Your task to perform on an android device: Set the phone to "Do not disturb". Image 0: 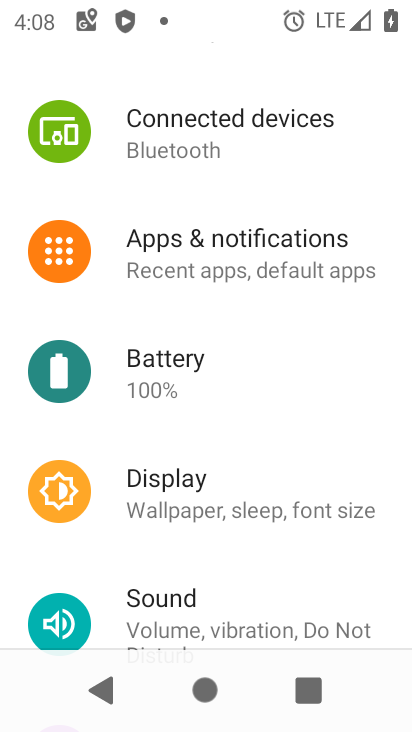
Step 0: click (308, 539)
Your task to perform on an android device: Set the phone to "Do not disturb". Image 1: 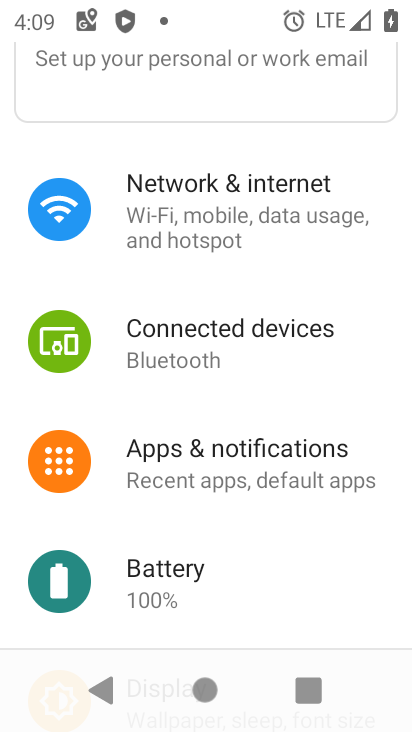
Step 1: drag from (231, 506) to (277, 172)
Your task to perform on an android device: Set the phone to "Do not disturb". Image 2: 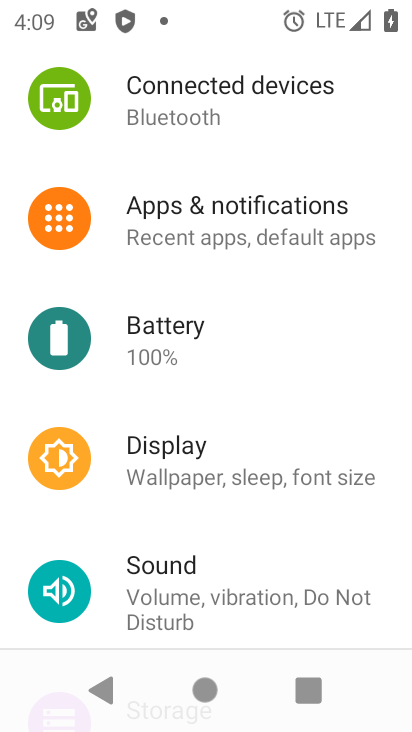
Step 2: click (180, 562)
Your task to perform on an android device: Set the phone to "Do not disturb". Image 3: 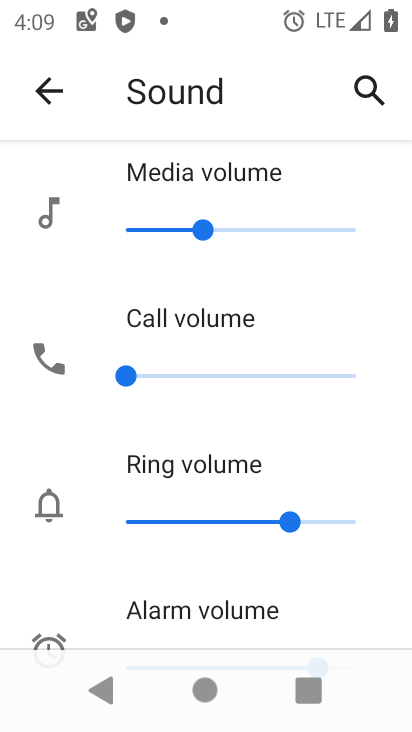
Step 3: drag from (189, 523) to (254, 159)
Your task to perform on an android device: Set the phone to "Do not disturb". Image 4: 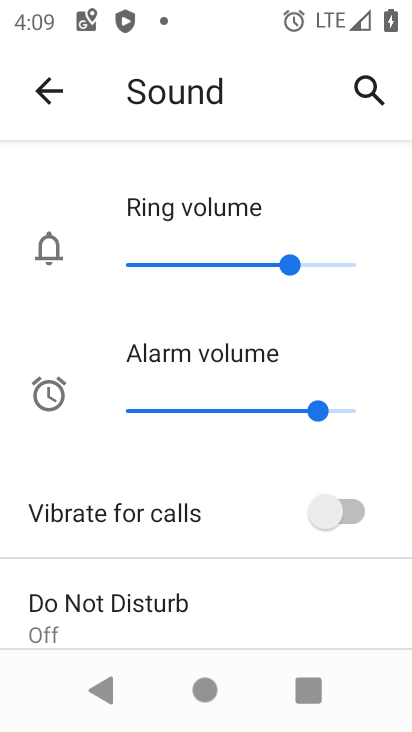
Step 4: drag from (238, 526) to (300, 208)
Your task to perform on an android device: Set the phone to "Do not disturb". Image 5: 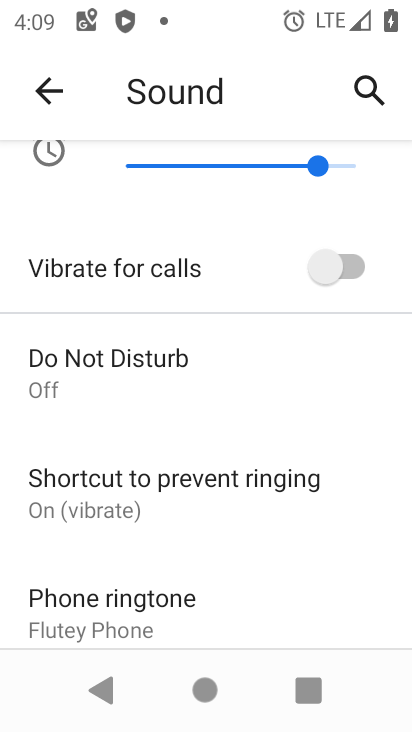
Step 5: click (90, 401)
Your task to perform on an android device: Set the phone to "Do not disturb". Image 6: 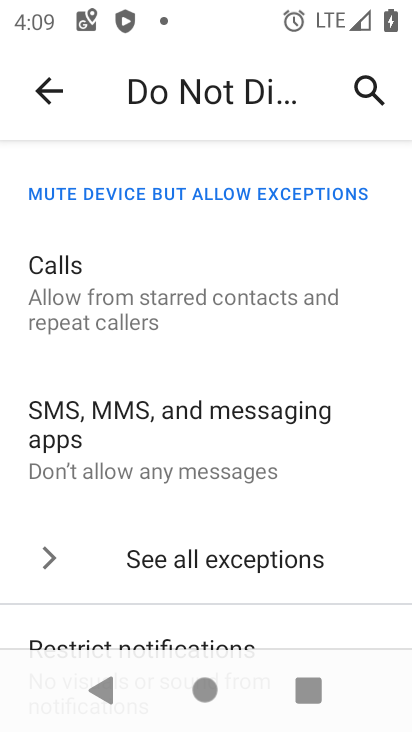
Step 6: drag from (139, 461) to (199, 137)
Your task to perform on an android device: Set the phone to "Do not disturb". Image 7: 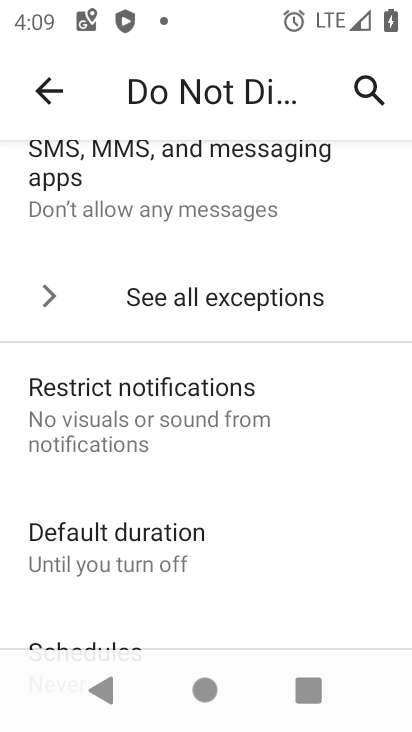
Step 7: drag from (181, 566) to (273, 234)
Your task to perform on an android device: Set the phone to "Do not disturb". Image 8: 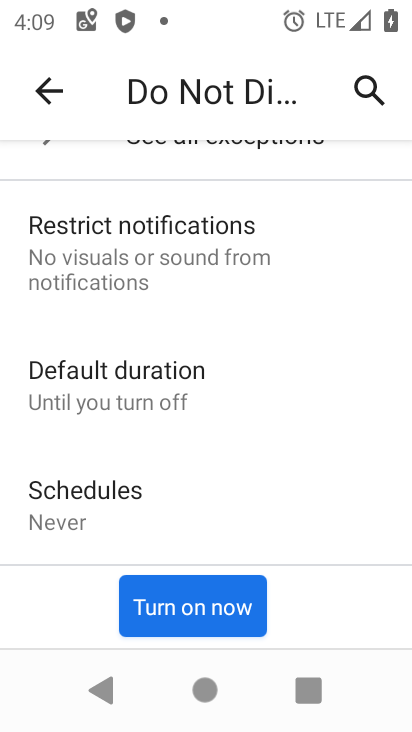
Step 8: click (200, 602)
Your task to perform on an android device: Set the phone to "Do not disturb". Image 9: 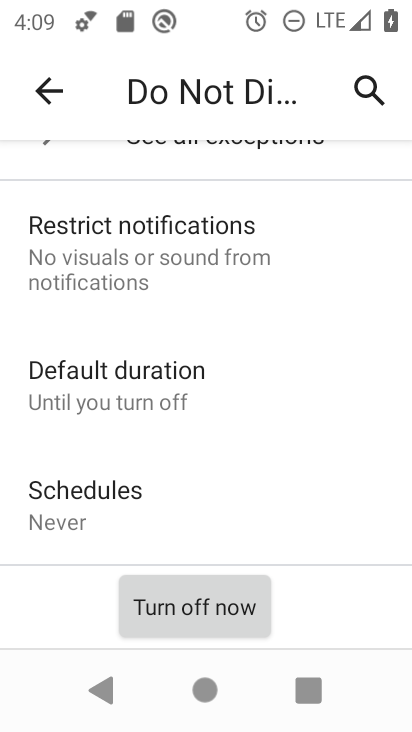
Step 9: task complete